Your task to perform on an android device: open the mobile data screen to see how much data has been used Image 0: 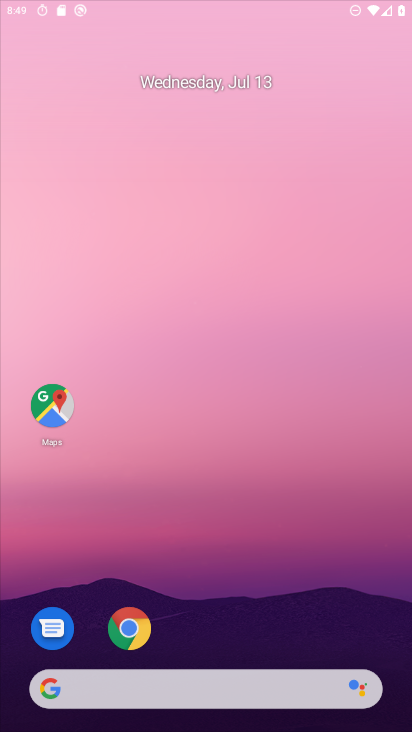
Step 0: click (196, 118)
Your task to perform on an android device: open the mobile data screen to see how much data has been used Image 1: 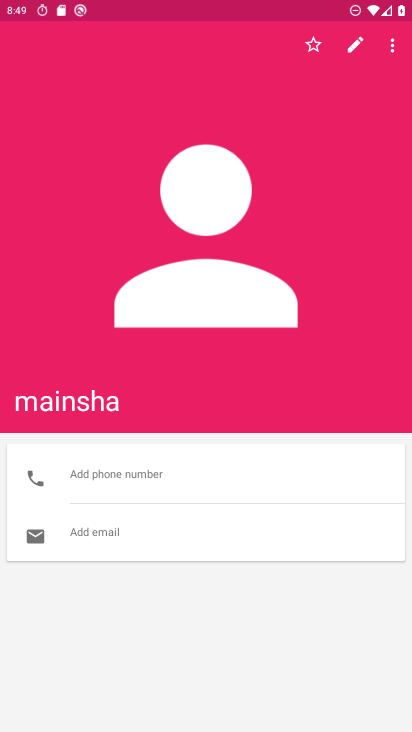
Step 1: press home button
Your task to perform on an android device: open the mobile data screen to see how much data has been used Image 2: 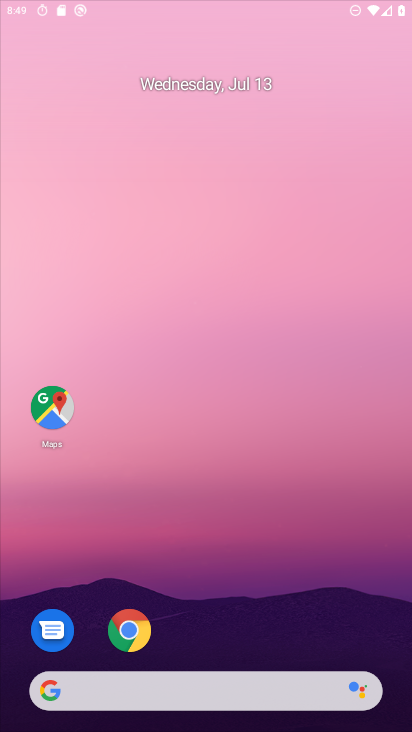
Step 2: drag from (374, 681) to (249, 65)
Your task to perform on an android device: open the mobile data screen to see how much data has been used Image 3: 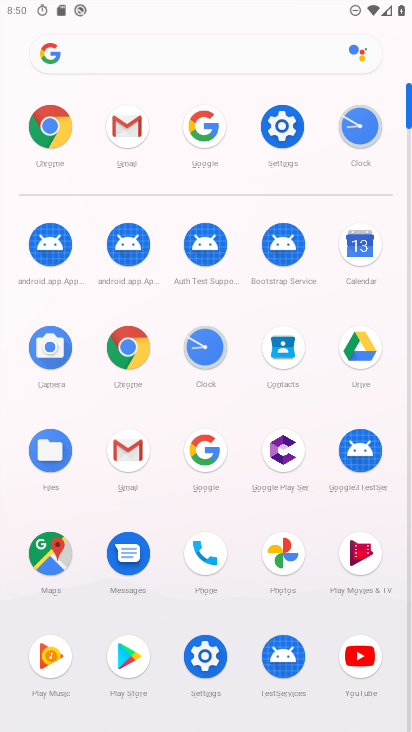
Step 3: click (289, 133)
Your task to perform on an android device: open the mobile data screen to see how much data has been used Image 4: 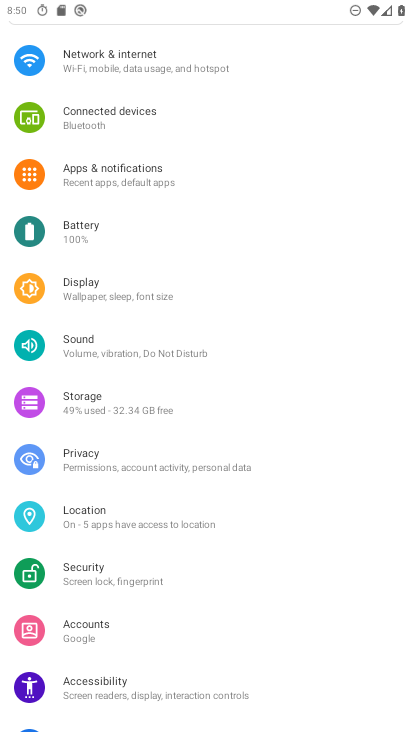
Step 4: click (111, 64)
Your task to perform on an android device: open the mobile data screen to see how much data has been used Image 5: 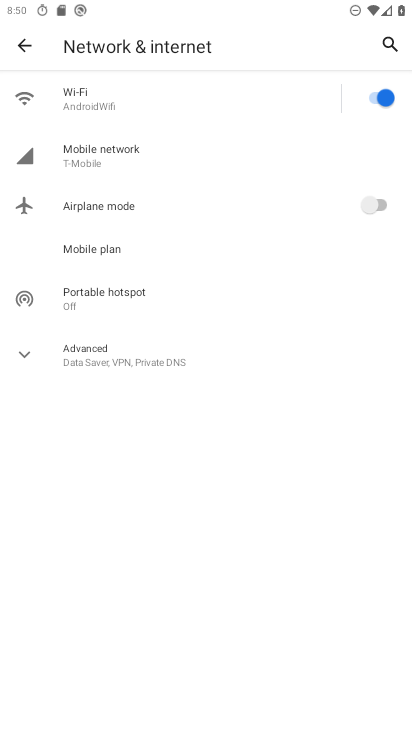
Step 5: click (126, 153)
Your task to perform on an android device: open the mobile data screen to see how much data has been used Image 6: 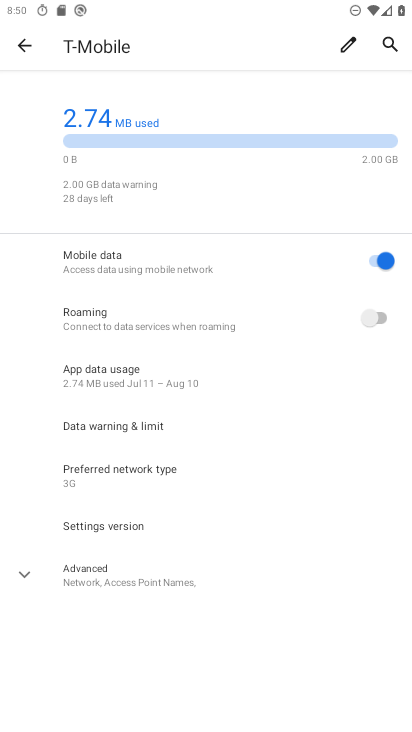
Step 6: click (128, 375)
Your task to perform on an android device: open the mobile data screen to see how much data has been used Image 7: 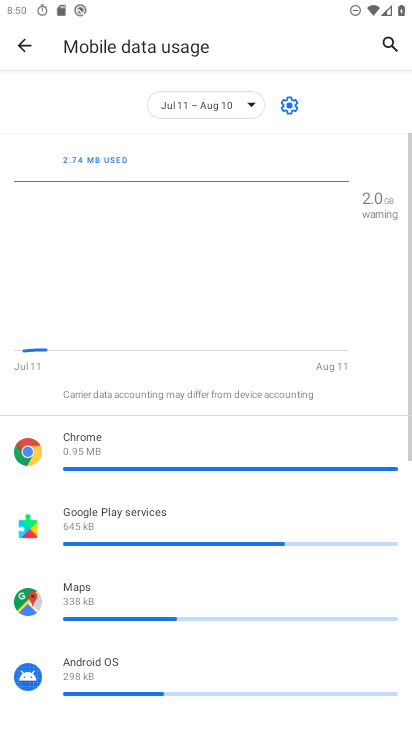
Step 7: task complete